Your task to perform on an android device: change the clock display to show seconds Image 0: 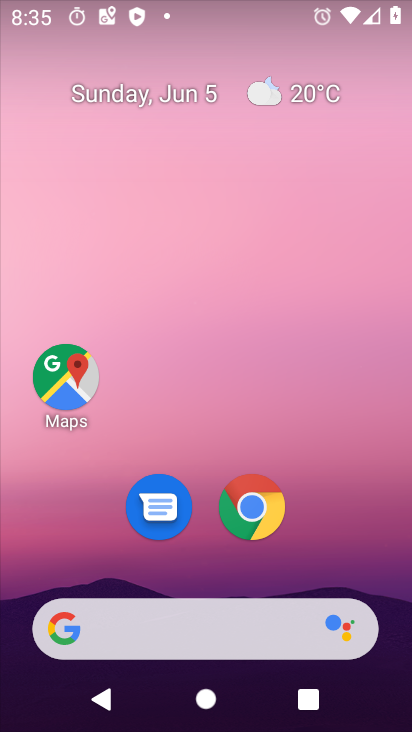
Step 0: drag from (338, 577) to (254, 40)
Your task to perform on an android device: change the clock display to show seconds Image 1: 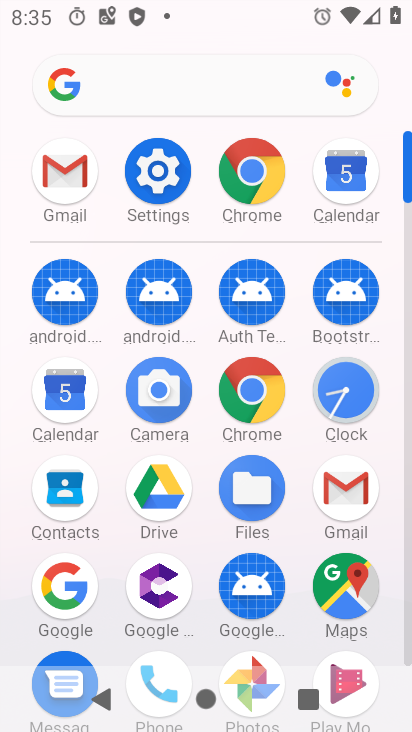
Step 1: drag from (8, 531) to (15, 219)
Your task to perform on an android device: change the clock display to show seconds Image 2: 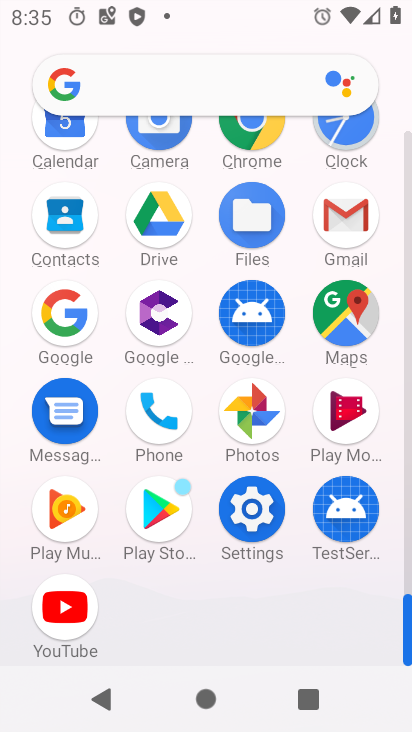
Step 2: drag from (19, 192) to (45, 449)
Your task to perform on an android device: change the clock display to show seconds Image 3: 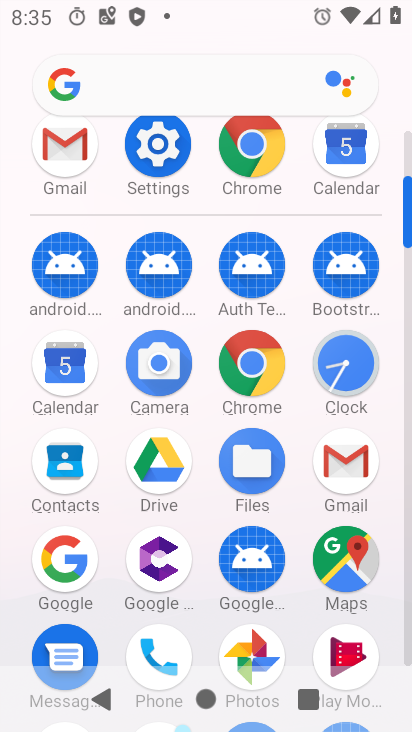
Step 3: click (345, 361)
Your task to perform on an android device: change the clock display to show seconds Image 4: 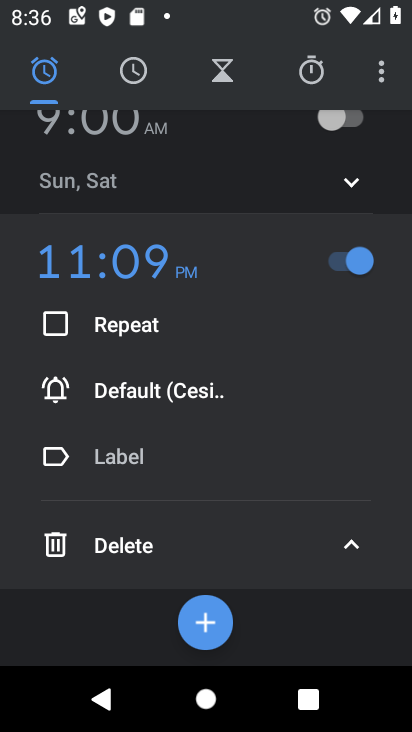
Step 4: click (381, 61)
Your task to perform on an android device: change the clock display to show seconds Image 5: 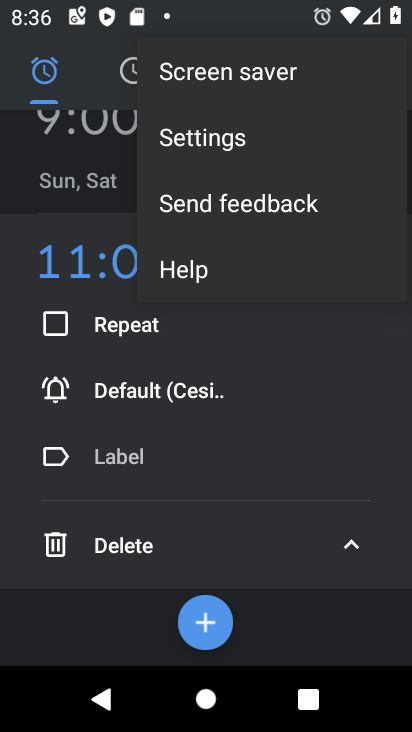
Step 5: click (198, 145)
Your task to perform on an android device: change the clock display to show seconds Image 6: 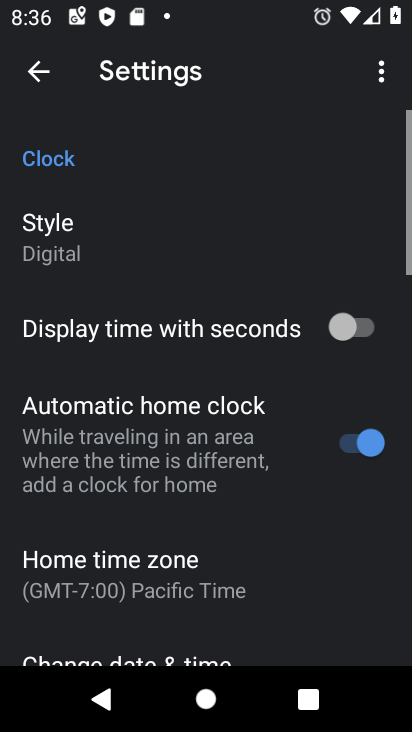
Step 6: click (142, 231)
Your task to perform on an android device: change the clock display to show seconds Image 7: 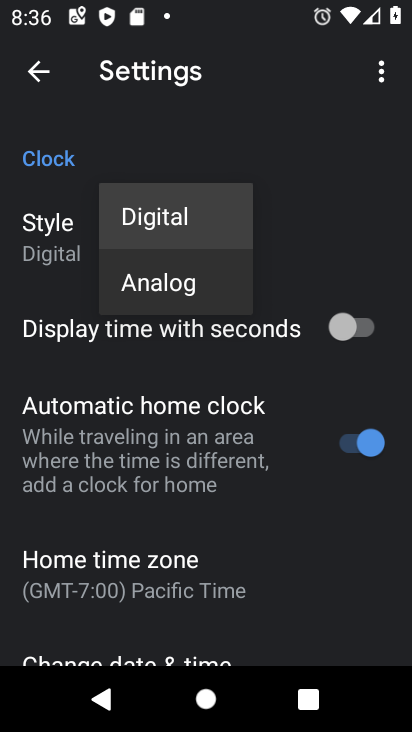
Step 7: click (145, 266)
Your task to perform on an android device: change the clock display to show seconds Image 8: 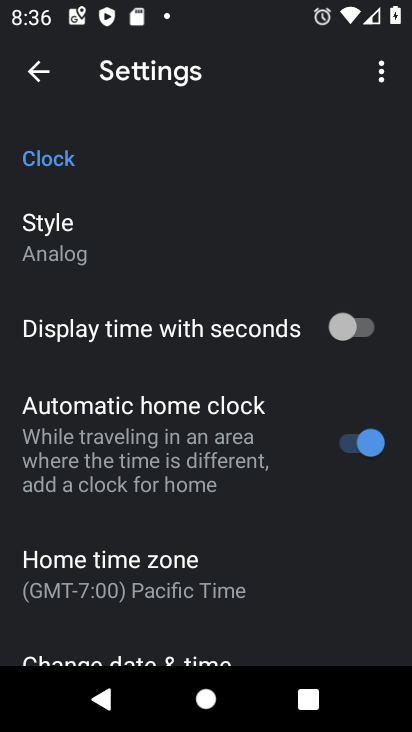
Step 8: click (345, 332)
Your task to perform on an android device: change the clock display to show seconds Image 9: 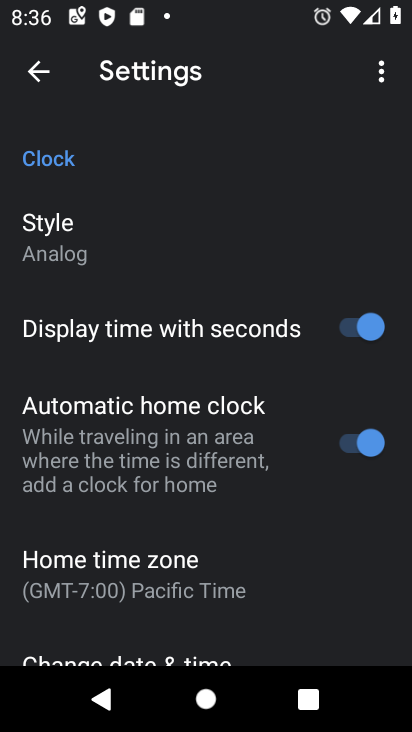
Step 9: task complete